Your task to perform on an android device: open the mobile data screen to see how much data has been used Image 0: 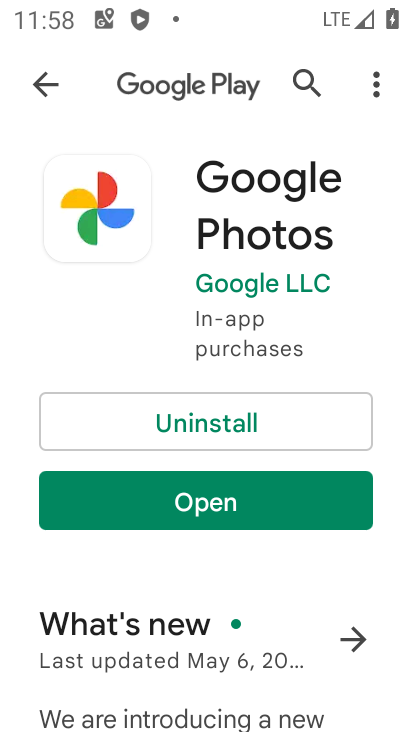
Step 0: press home button
Your task to perform on an android device: open the mobile data screen to see how much data has been used Image 1: 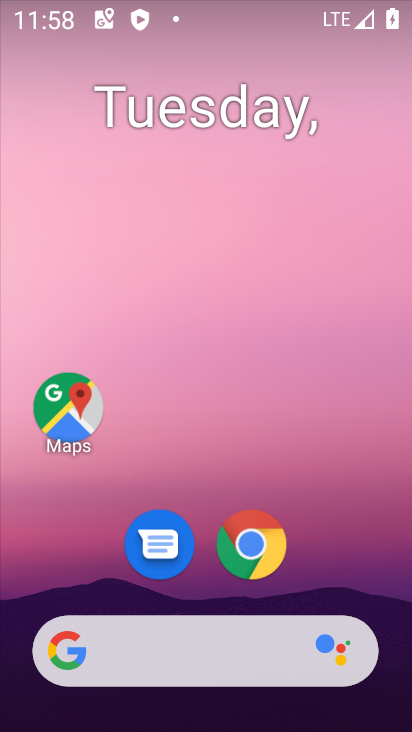
Step 1: drag from (394, 623) to (265, 99)
Your task to perform on an android device: open the mobile data screen to see how much data has been used Image 2: 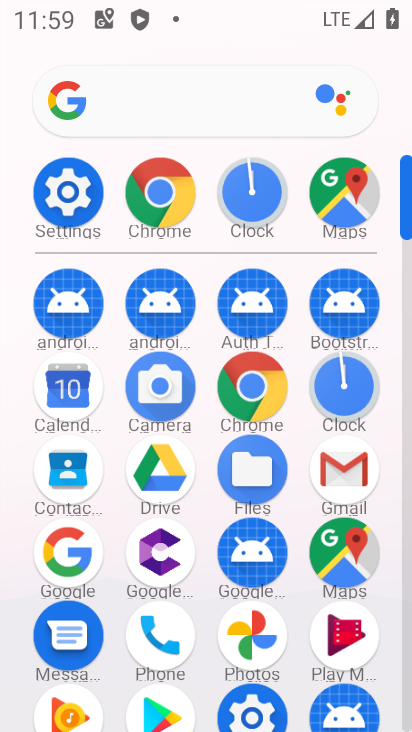
Step 2: click (72, 190)
Your task to perform on an android device: open the mobile data screen to see how much data has been used Image 3: 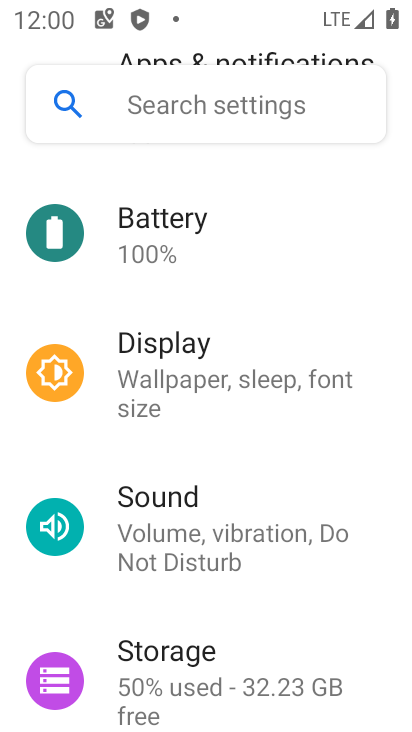
Step 3: task complete